Your task to perform on an android device: Open calendar and show me the second week of next month Image 0: 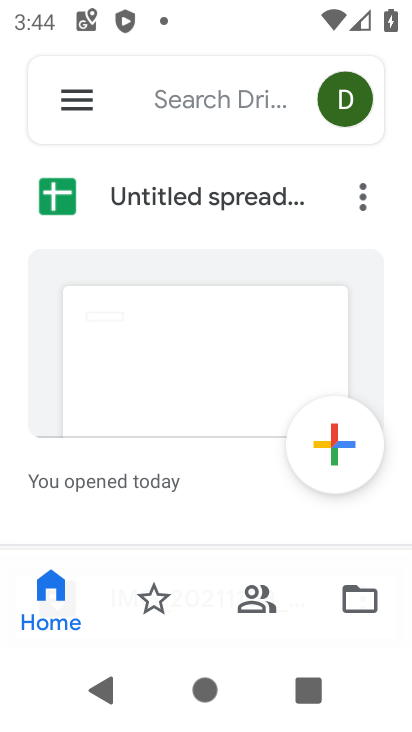
Step 0: task complete